Your task to perform on an android device: Go to sound settings Image 0: 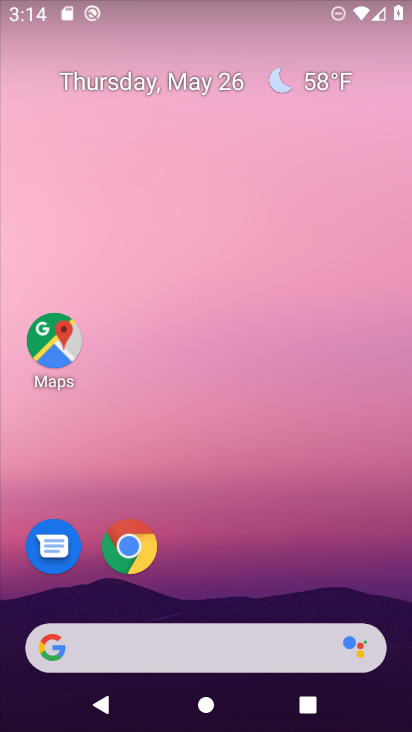
Step 0: press home button
Your task to perform on an android device: Go to sound settings Image 1: 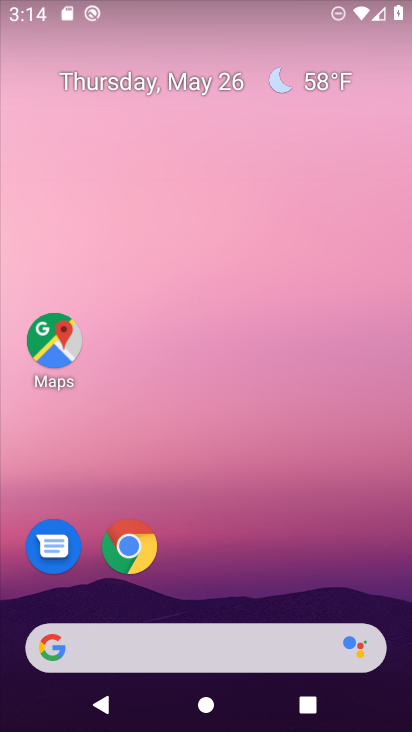
Step 1: drag from (218, 603) to (224, 32)
Your task to perform on an android device: Go to sound settings Image 2: 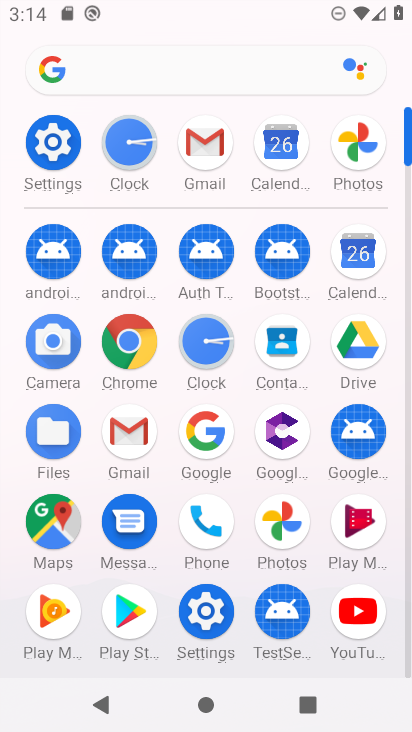
Step 2: click (50, 138)
Your task to perform on an android device: Go to sound settings Image 3: 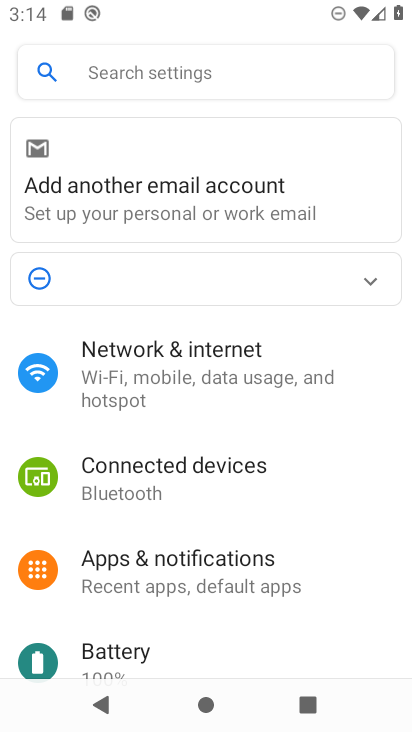
Step 3: drag from (177, 643) to (207, 115)
Your task to perform on an android device: Go to sound settings Image 4: 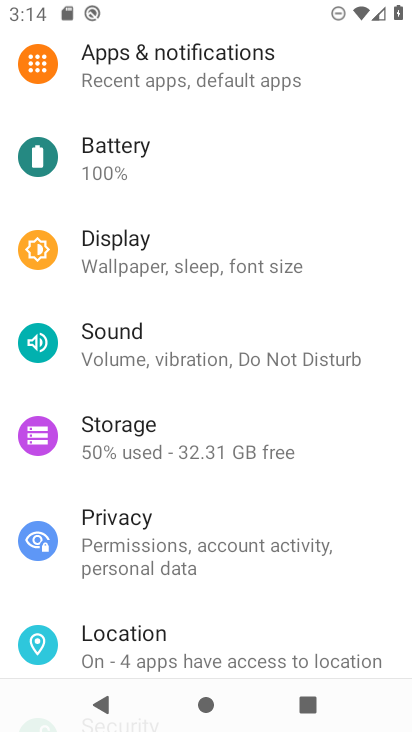
Step 4: click (162, 330)
Your task to perform on an android device: Go to sound settings Image 5: 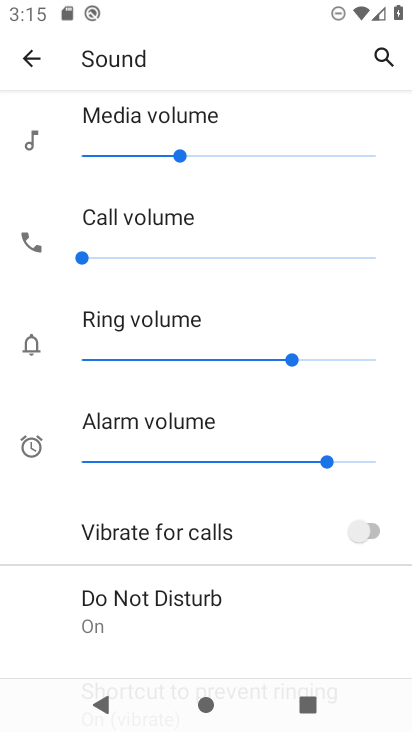
Step 5: drag from (226, 619) to (229, 93)
Your task to perform on an android device: Go to sound settings Image 6: 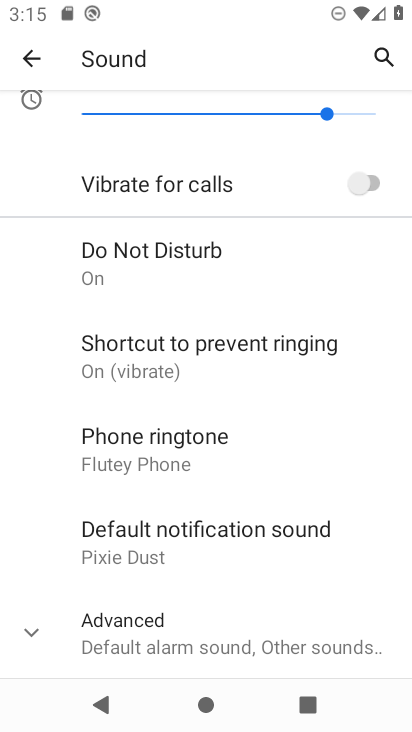
Step 6: click (30, 624)
Your task to perform on an android device: Go to sound settings Image 7: 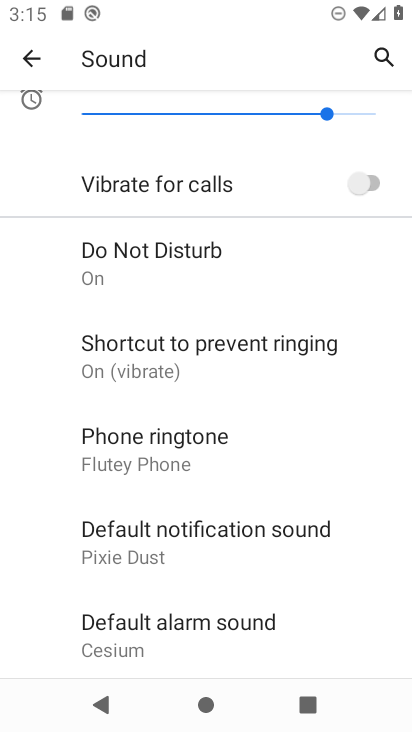
Step 7: task complete